Your task to perform on an android device: See recent photos Image 0: 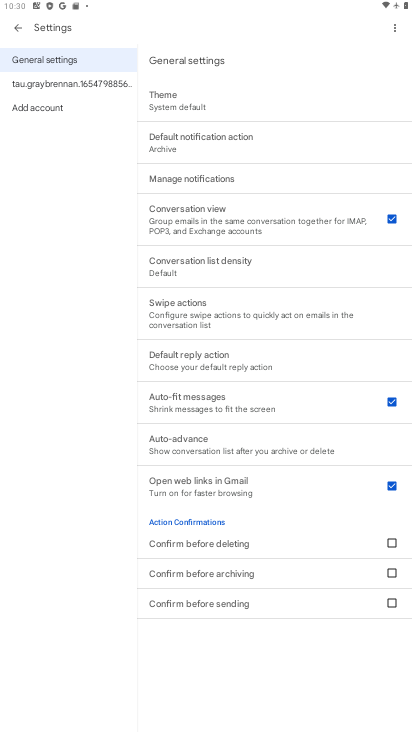
Step 0: press home button
Your task to perform on an android device: See recent photos Image 1: 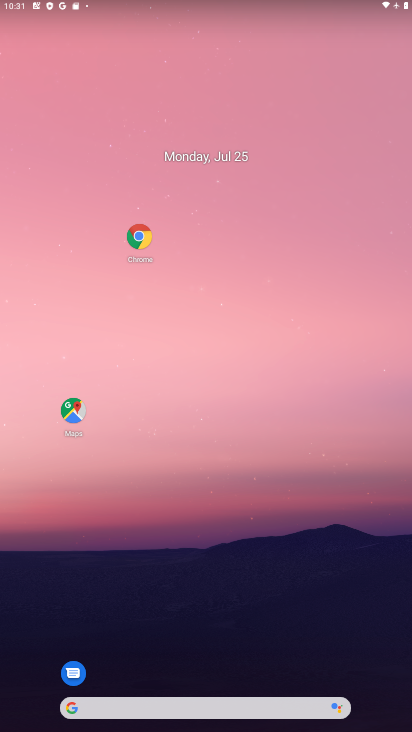
Step 1: drag from (200, 688) to (219, 7)
Your task to perform on an android device: See recent photos Image 2: 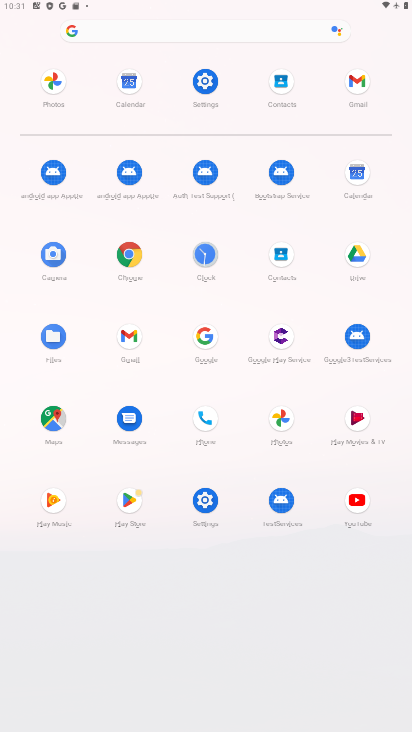
Step 2: click (65, 106)
Your task to perform on an android device: See recent photos Image 3: 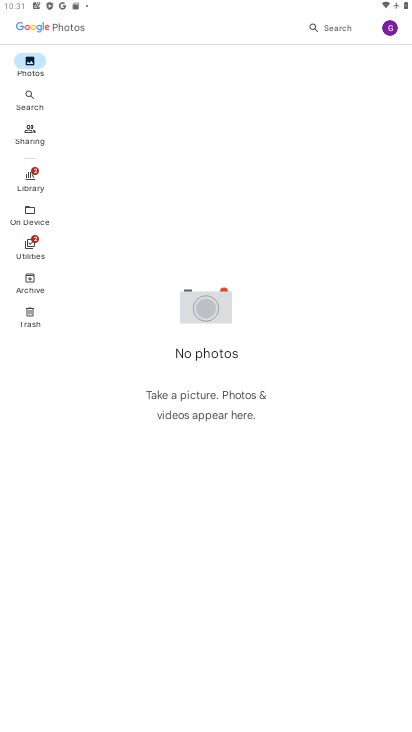
Step 3: task complete